Your task to perform on an android device: toggle data saver in the chrome app Image 0: 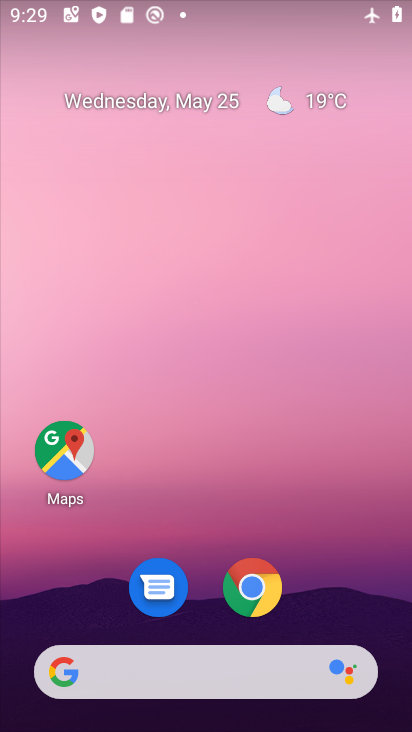
Step 0: click (253, 587)
Your task to perform on an android device: toggle data saver in the chrome app Image 1: 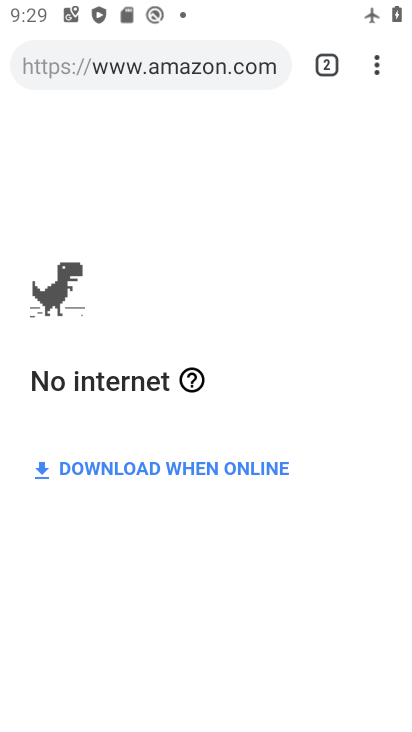
Step 1: click (373, 73)
Your task to perform on an android device: toggle data saver in the chrome app Image 2: 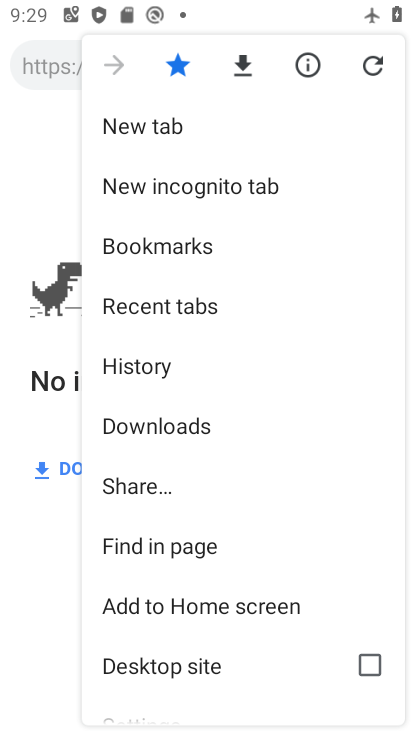
Step 2: drag from (316, 621) to (282, 138)
Your task to perform on an android device: toggle data saver in the chrome app Image 3: 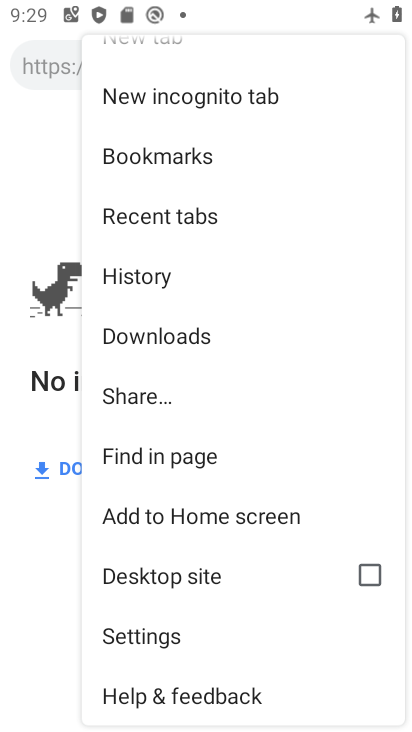
Step 3: click (135, 634)
Your task to perform on an android device: toggle data saver in the chrome app Image 4: 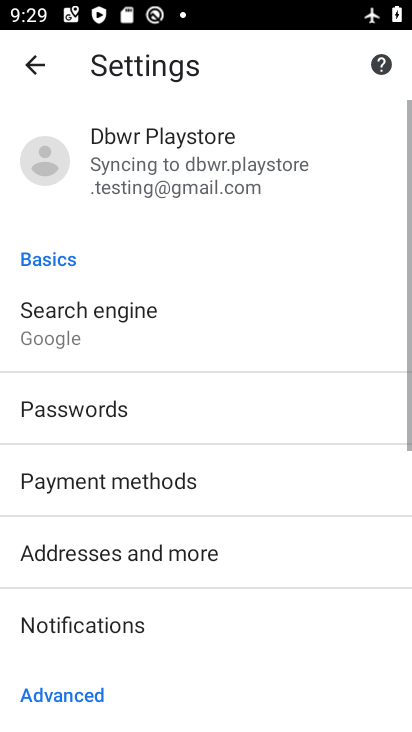
Step 4: drag from (282, 669) to (313, 189)
Your task to perform on an android device: toggle data saver in the chrome app Image 5: 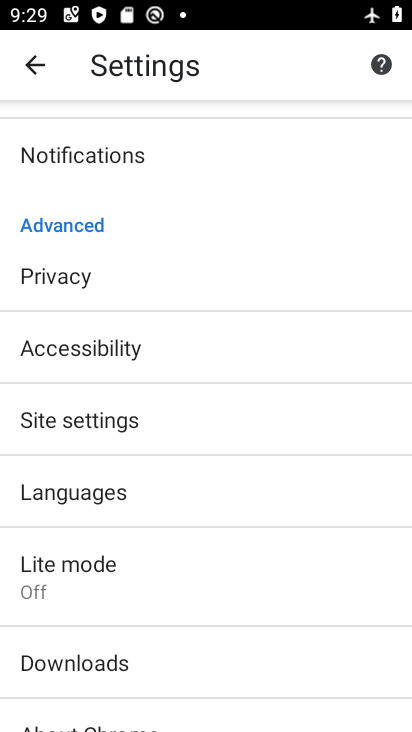
Step 5: click (62, 571)
Your task to perform on an android device: toggle data saver in the chrome app Image 6: 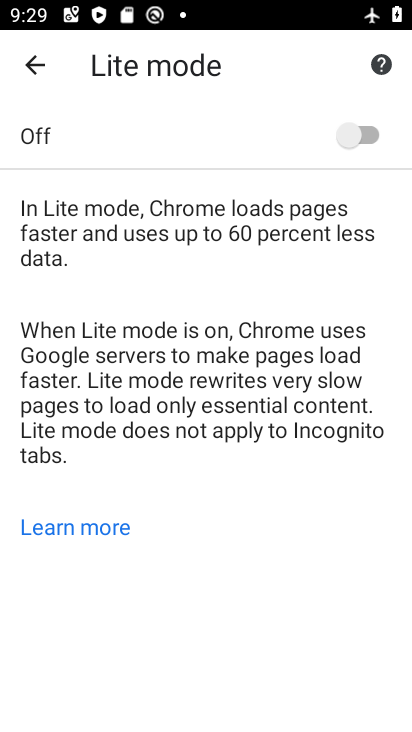
Step 6: click (367, 134)
Your task to perform on an android device: toggle data saver in the chrome app Image 7: 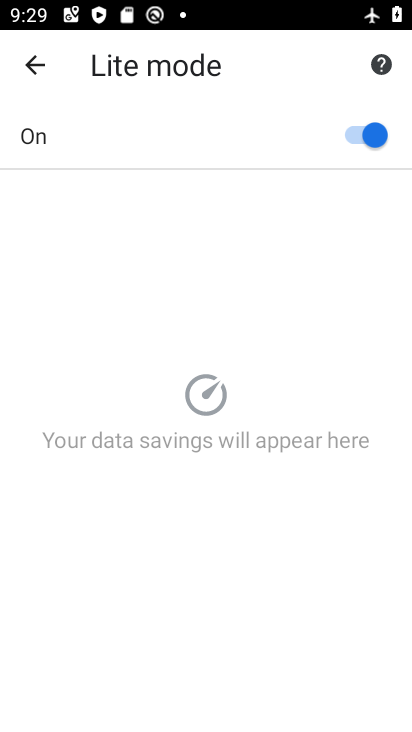
Step 7: task complete